Your task to perform on an android device: Search for Mexican restaurants on Maps Image 0: 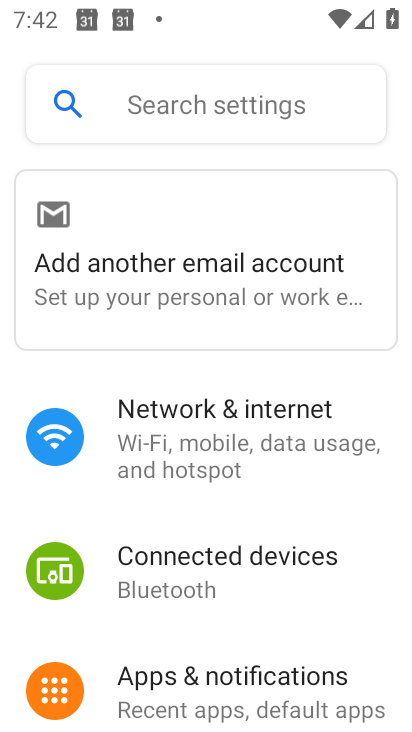
Step 0: press home button
Your task to perform on an android device: Search for Mexican restaurants on Maps Image 1: 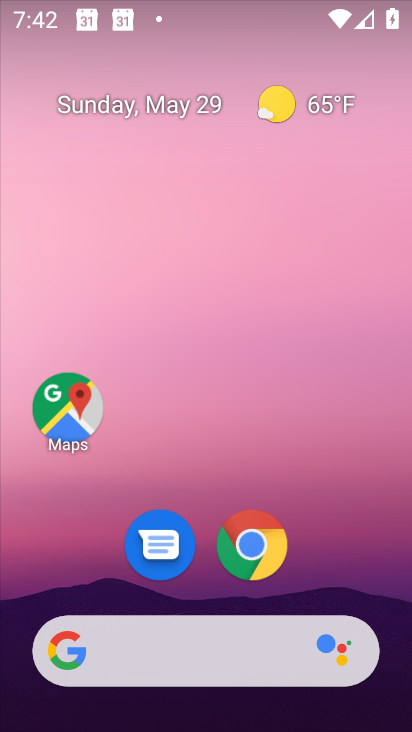
Step 1: click (50, 405)
Your task to perform on an android device: Search for Mexican restaurants on Maps Image 2: 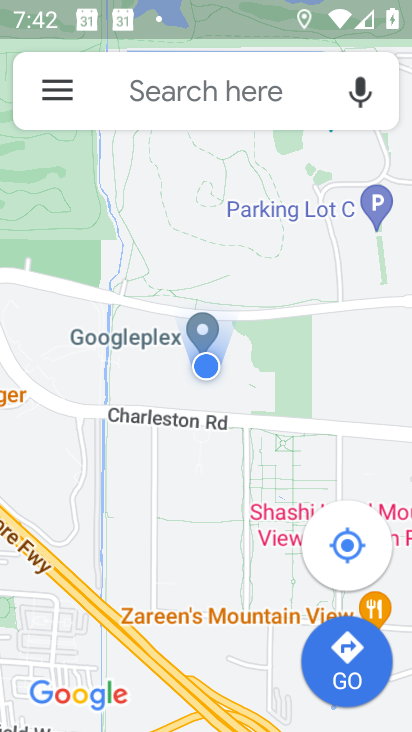
Step 2: click (175, 100)
Your task to perform on an android device: Search for Mexican restaurants on Maps Image 3: 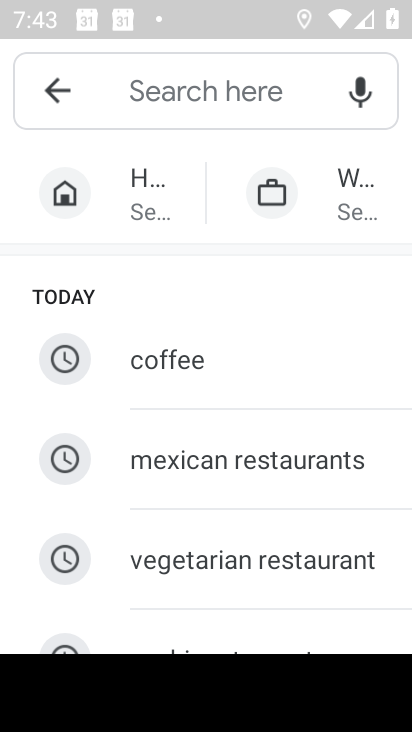
Step 3: type "mexican restaurants"
Your task to perform on an android device: Search for Mexican restaurants on Maps Image 4: 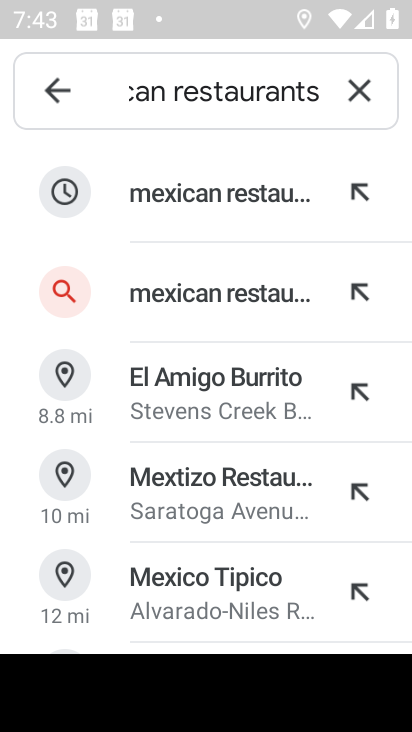
Step 4: click (247, 190)
Your task to perform on an android device: Search for Mexican restaurants on Maps Image 5: 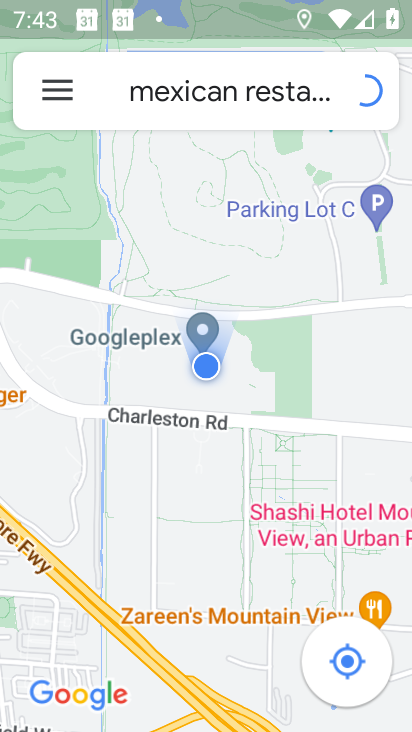
Step 5: task complete